Your task to perform on an android device: Check the news Image 0: 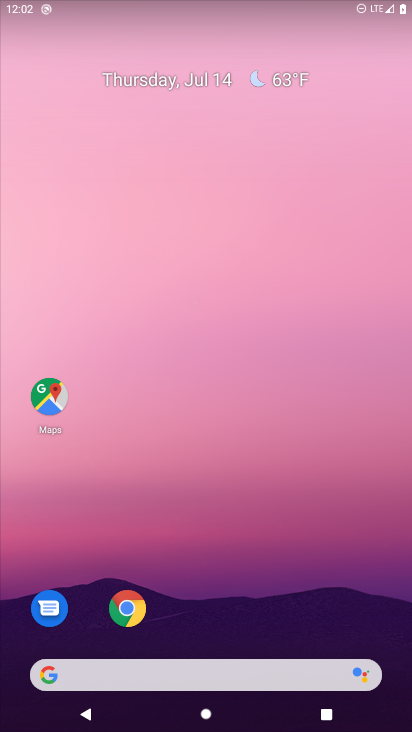
Step 0: press home button
Your task to perform on an android device: Check the news Image 1: 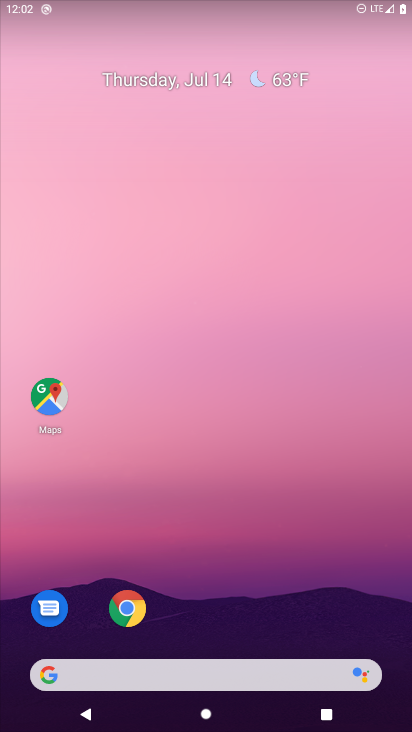
Step 1: drag from (182, 546) to (120, 17)
Your task to perform on an android device: Check the news Image 2: 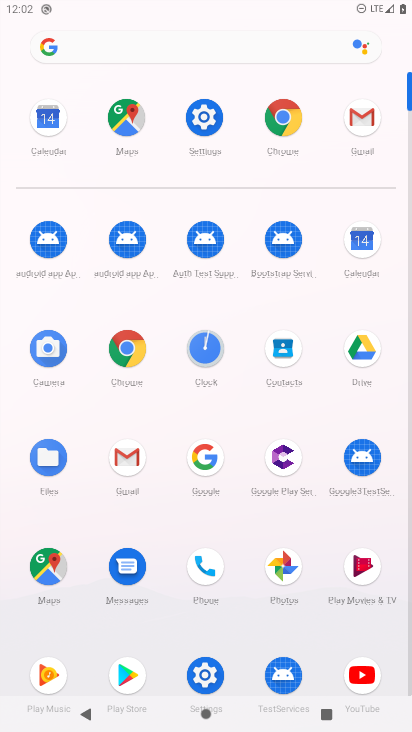
Step 2: click (275, 132)
Your task to perform on an android device: Check the news Image 3: 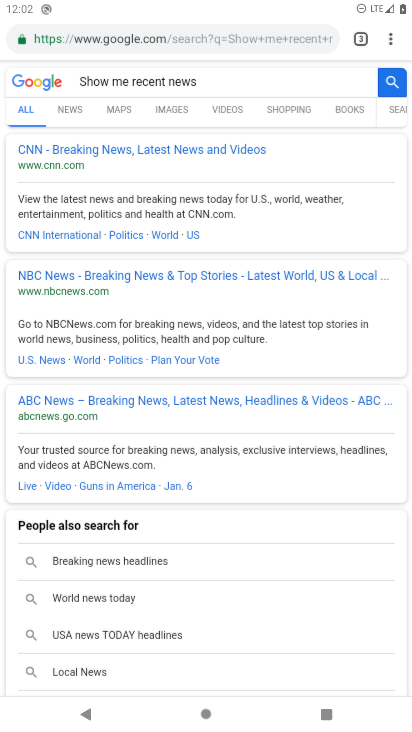
Step 3: click (203, 43)
Your task to perform on an android device: Check the news Image 4: 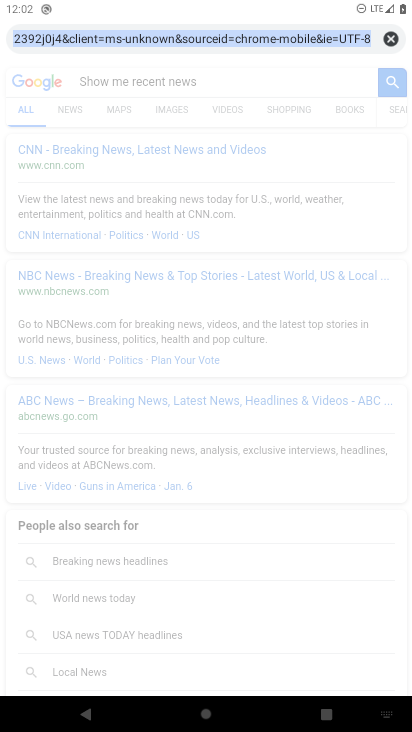
Step 4: type "news"
Your task to perform on an android device: Check the news Image 5: 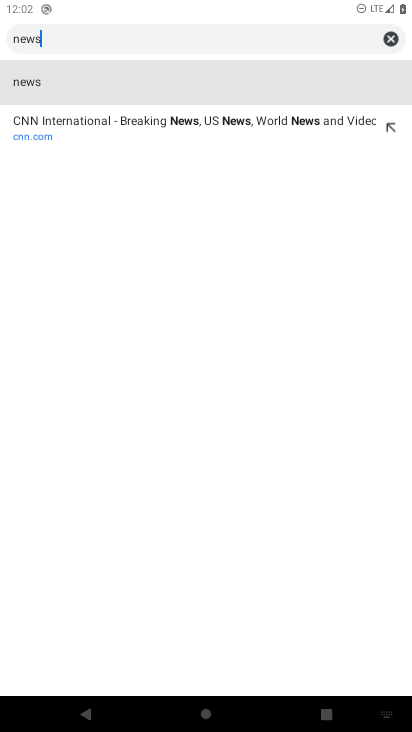
Step 5: type ""
Your task to perform on an android device: Check the news Image 6: 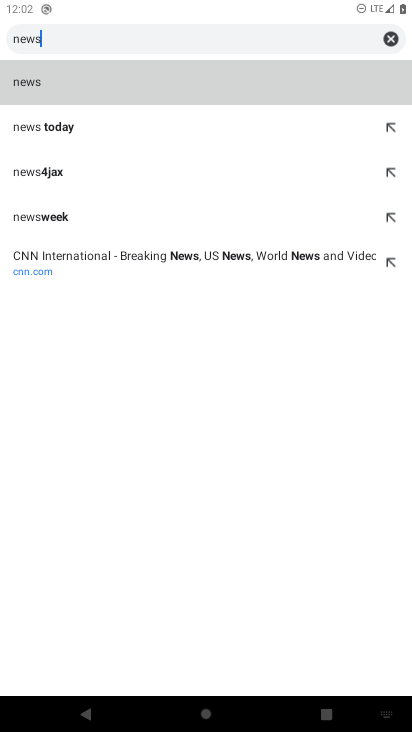
Step 6: click (79, 82)
Your task to perform on an android device: Check the news Image 7: 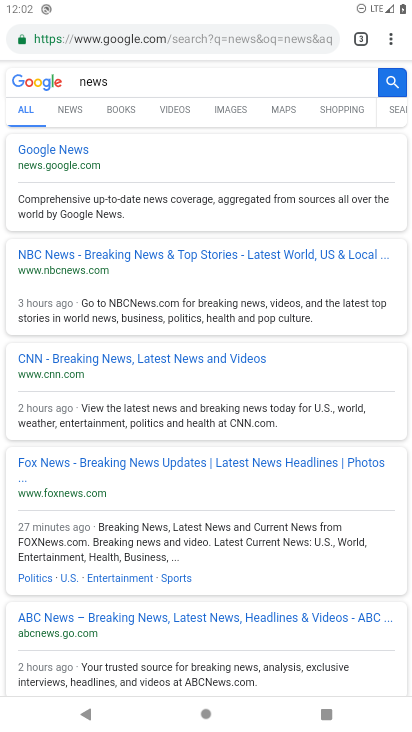
Step 7: task complete